Your task to perform on an android device: Search for seafood restaurants on Google Maps Image 0: 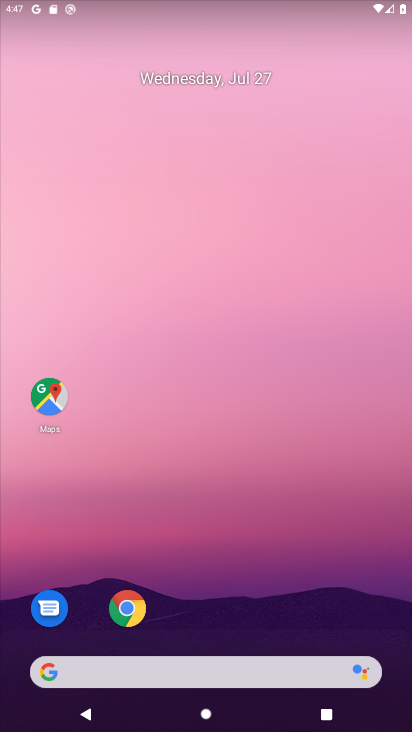
Step 0: click (55, 404)
Your task to perform on an android device: Search for seafood restaurants on Google Maps Image 1: 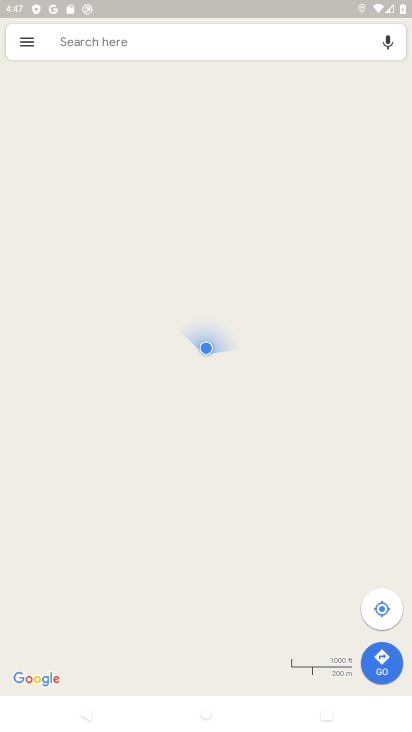
Step 1: click (161, 60)
Your task to perform on an android device: Search for seafood restaurants on Google Maps Image 2: 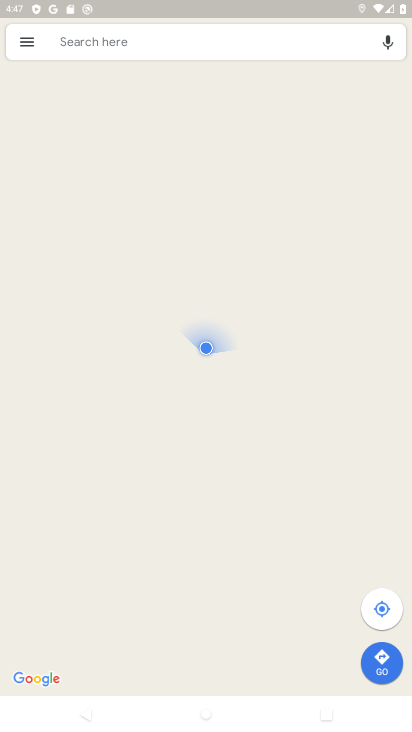
Step 2: click (121, 50)
Your task to perform on an android device: Search for seafood restaurants on Google Maps Image 3: 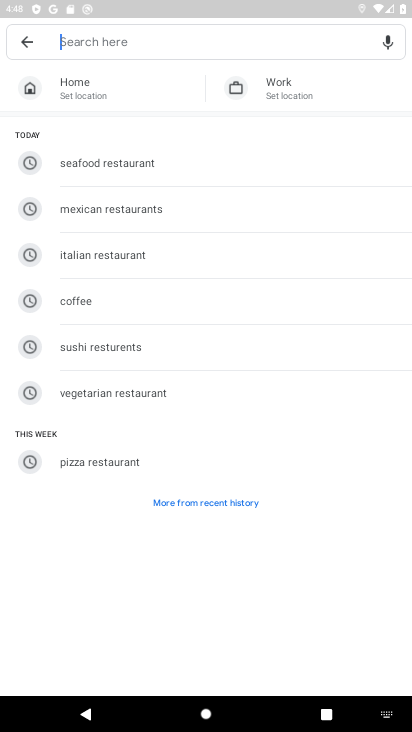
Step 3: click (86, 159)
Your task to perform on an android device: Search for seafood restaurants on Google Maps Image 4: 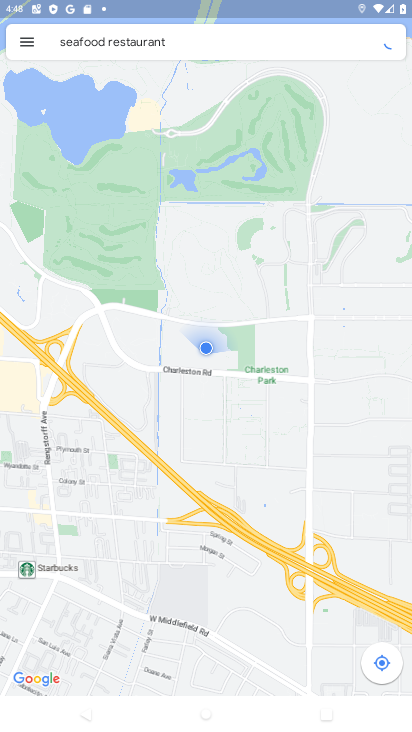
Step 4: task complete